Your task to perform on an android device: turn off priority inbox in the gmail app Image 0: 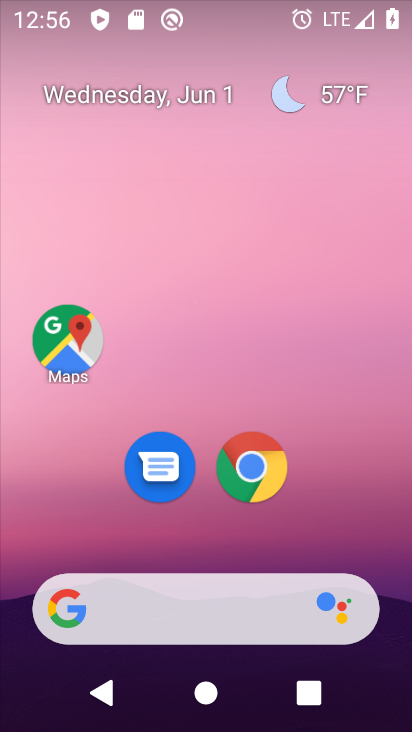
Step 0: drag from (368, 503) to (379, 80)
Your task to perform on an android device: turn off priority inbox in the gmail app Image 1: 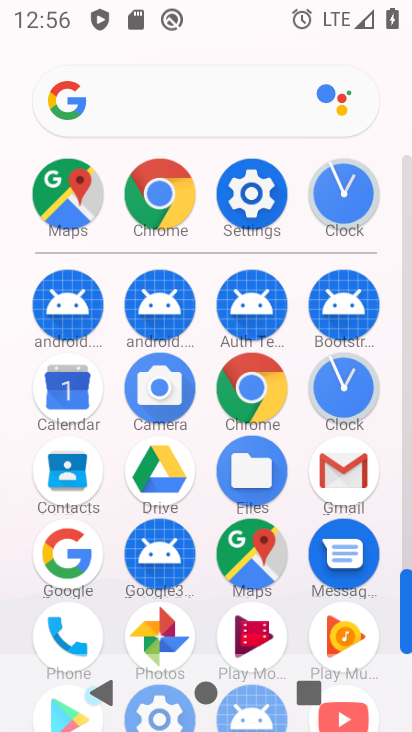
Step 1: click (362, 480)
Your task to perform on an android device: turn off priority inbox in the gmail app Image 2: 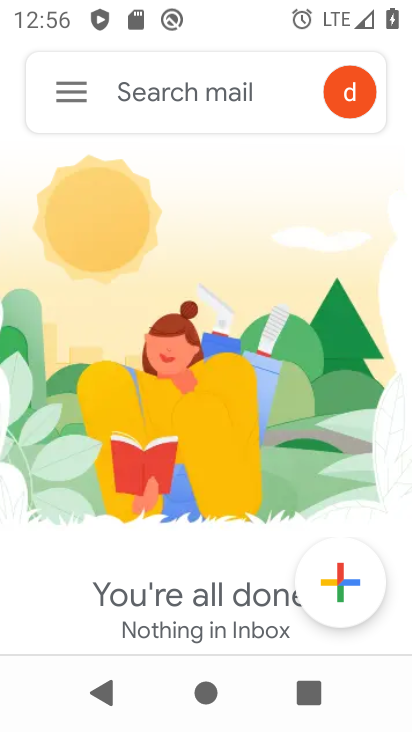
Step 2: click (69, 109)
Your task to perform on an android device: turn off priority inbox in the gmail app Image 3: 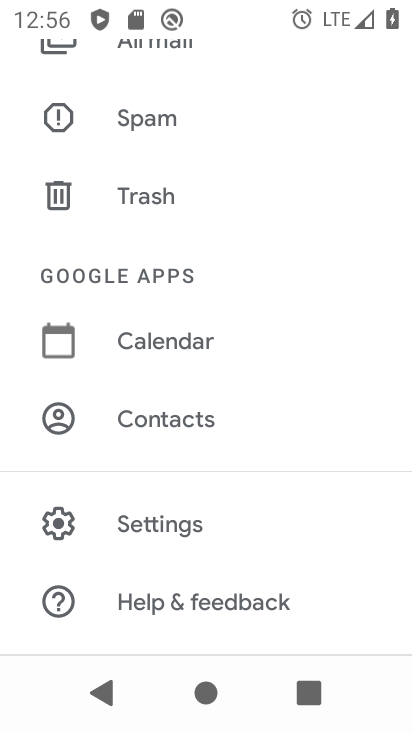
Step 3: drag from (282, 289) to (282, 377)
Your task to perform on an android device: turn off priority inbox in the gmail app Image 4: 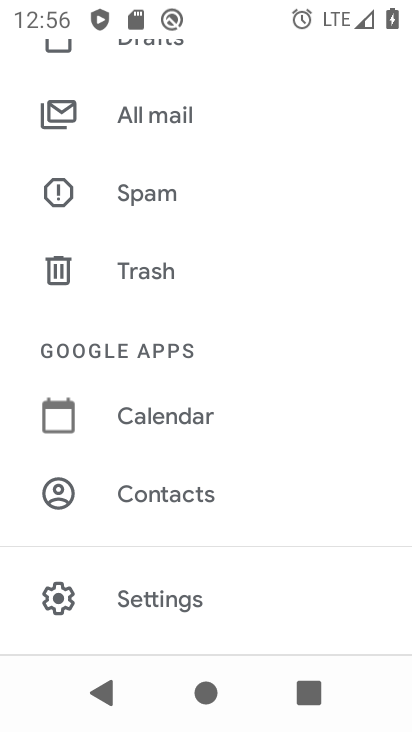
Step 4: drag from (296, 304) to (313, 393)
Your task to perform on an android device: turn off priority inbox in the gmail app Image 5: 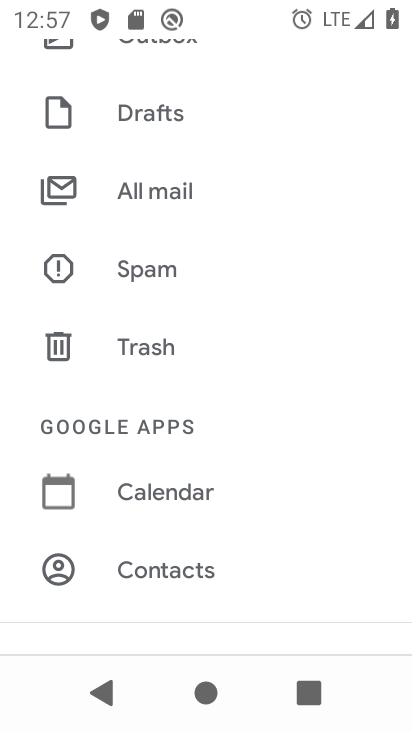
Step 5: drag from (292, 244) to (308, 352)
Your task to perform on an android device: turn off priority inbox in the gmail app Image 6: 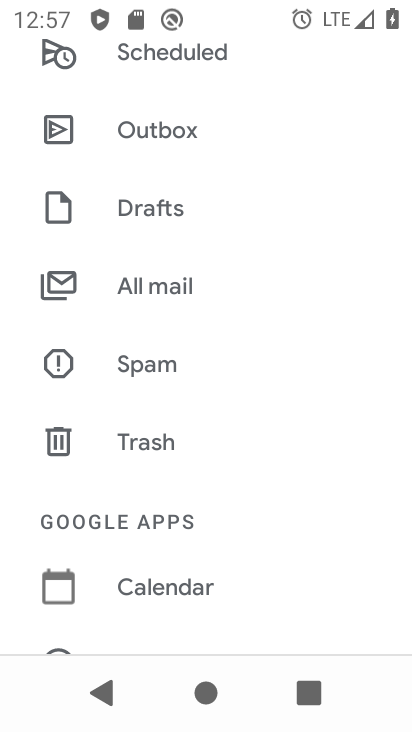
Step 6: drag from (311, 216) to (317, 367)
Your task to perform on an android device: turn off priority inbox in the gmail app Image 7: 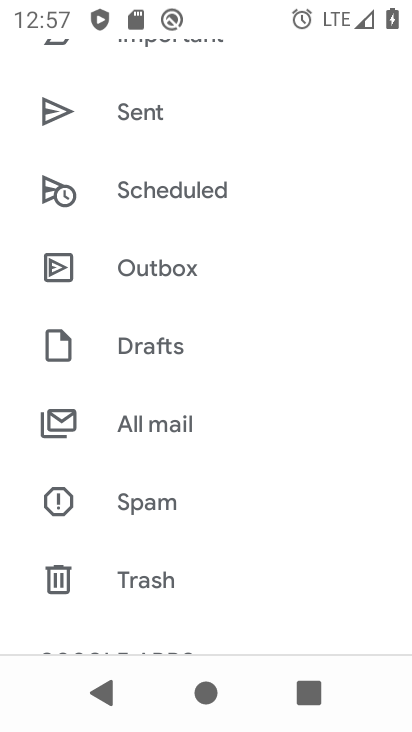
Step 7: drag from (316, 189) to (327, 380)
Your task to perform on an android device: turn off priority inbox in the gmail app Image 8: 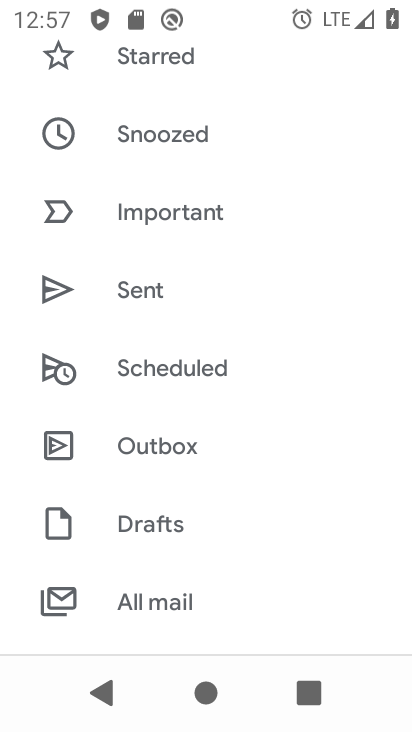
Step 8: drag from (295, 152) to (316, 431)
Your task to perform on an android device: turn off priority inbox in the gmail app Image 9: 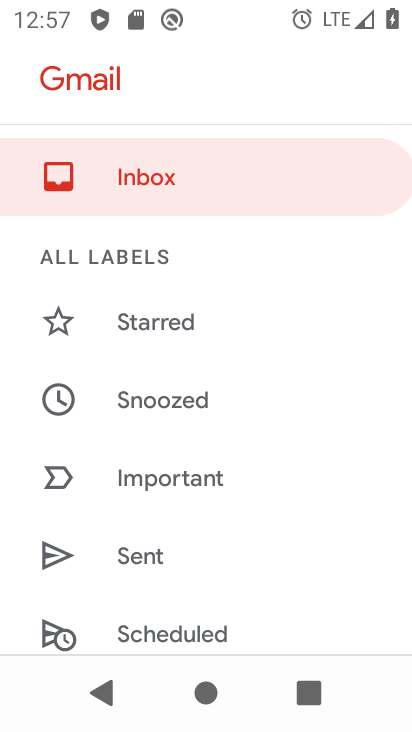
Step 9: drag from (320, 445) to (332, 277)
Your task to perform on an android device: turn off priority inbox in the gmail app Image 10: 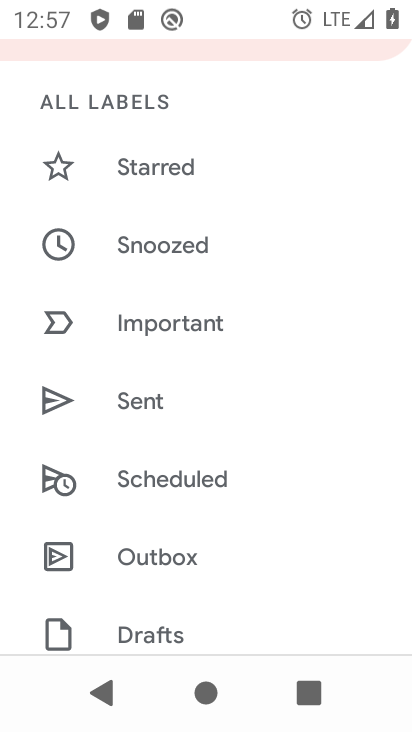
Step 10: drag from (333, 472) to (326, 275)
Your task to perform on an android device: turn off priority inbox in the gmail app Image 11: 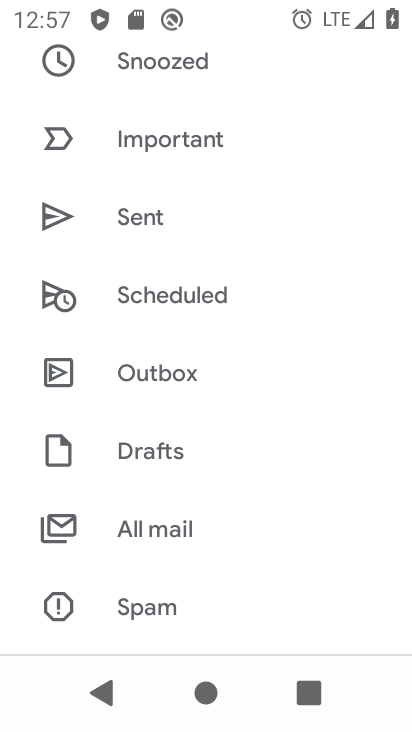
Step 11: drag from (327, 485) to (337, 276)
Your task to perform on an android device: turn off priority inbox in the gmail app Image 12: 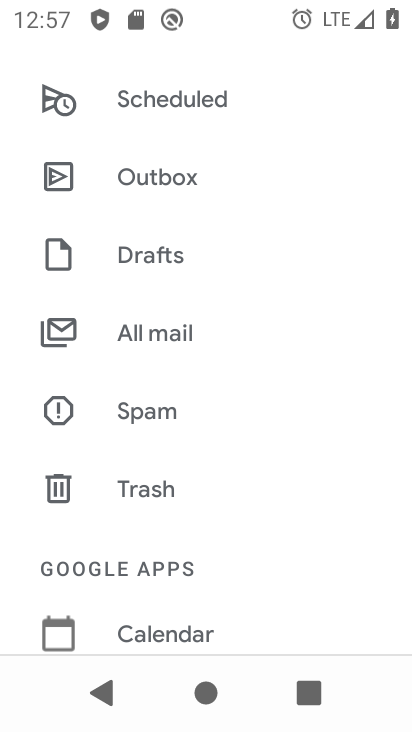
Step 12: drag from (332, 469) to (348, 300)
Your task to perform on an android device: turn off priority inbox in the gmail app Image 13: 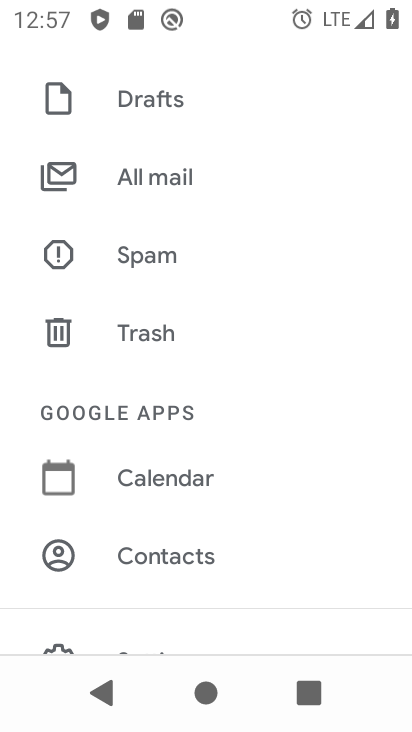
Step 13: drag from (343, 484) to (348, 275)
Your task to perform on an android device: turn off priority inbox in the gmail app Image 14: 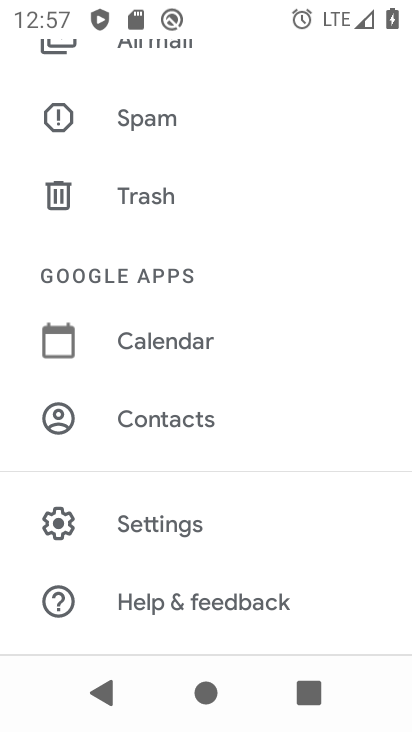
Step 14: click (213, 537)
Your task to perform on an android device: turn off priority inbox in the gmail app Image 15: 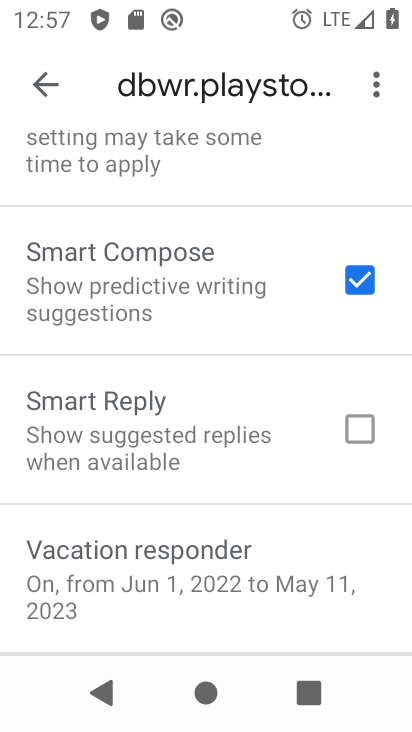
Step 15: drag from (276, 235) to (289, 417)
Your task to perform on an android device: turn off priority inbox in the gmail app Image 16: 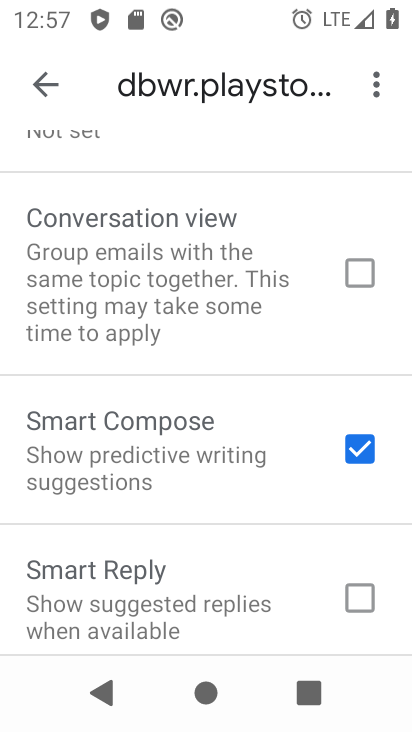
Step 16: drag from (287, 197) to (288, 438)
Your task to perform on an android device: turn off priority inbox in the gmail app Image 17: 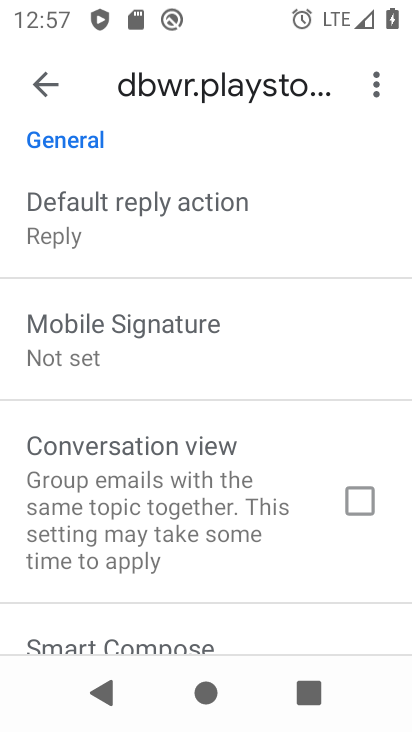
Step 17: drag from (284, 276) to (285, 396)
Your task to perform on an android device: turn off priority inbox in the gmail app Image 18: 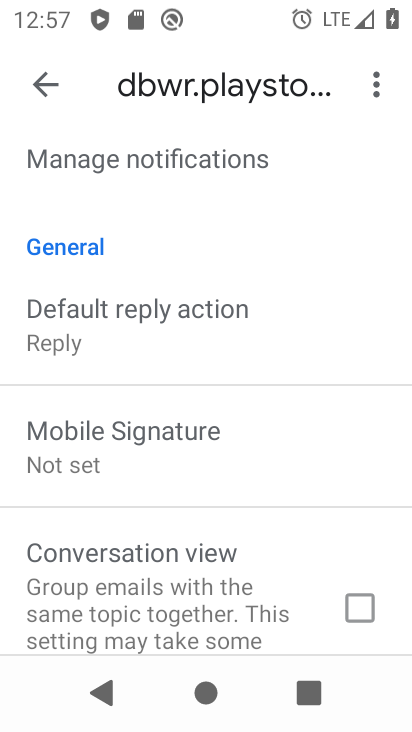
Step 18: drag from (296, 228) to (305, 435)
Your task to perform on an android device: turn off priority inbox in the gmail app Image 19: 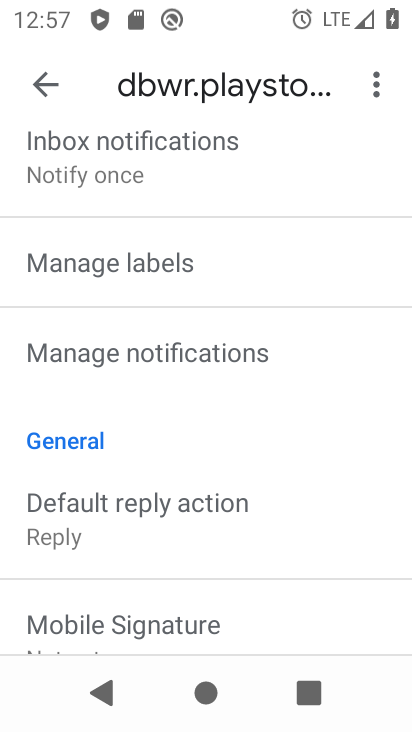
Step 19: drag from (295, 254) to (299, 449)
Your task to perform on an android device: turn off priority inbox in the gmail app Image 20: 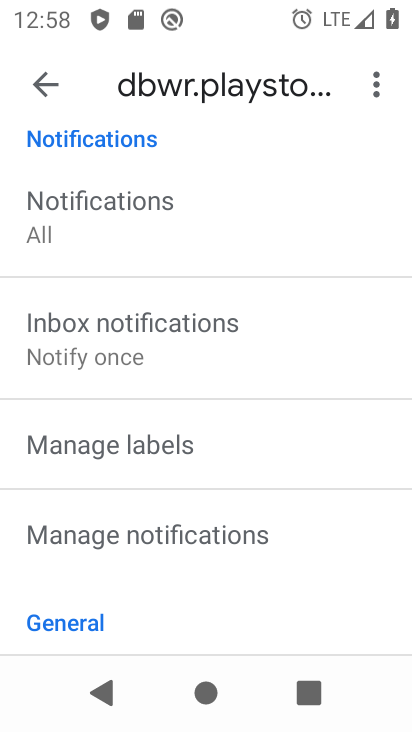
Step 20: drag from (293, 180) to (292, 477)
Your task to perform on an android device: turn off priority inbox in the gmail app Image 21: 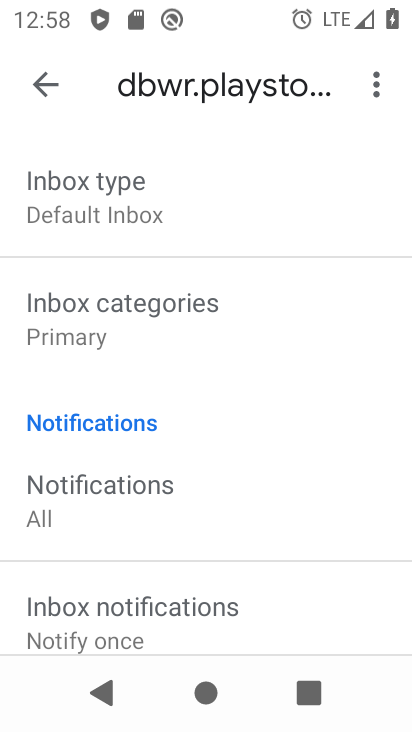
Step 21: click (129, 207)
Your task to perform on an android device: turn off priority inbox in the gmail app Image 22: 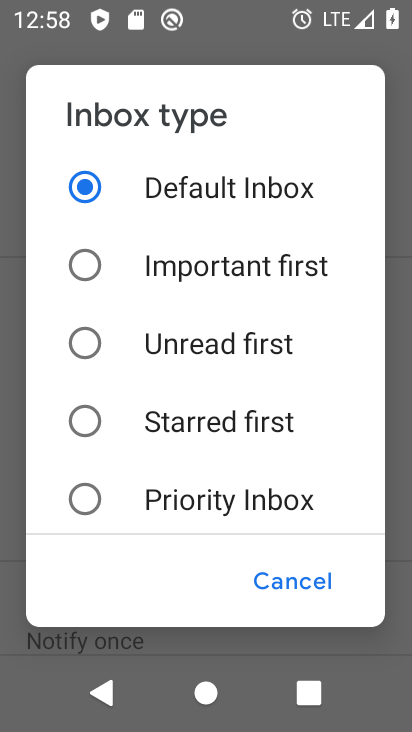
Step 22: task complete